Your task to perform on an android device: change your default location settings in chrome Image 0: 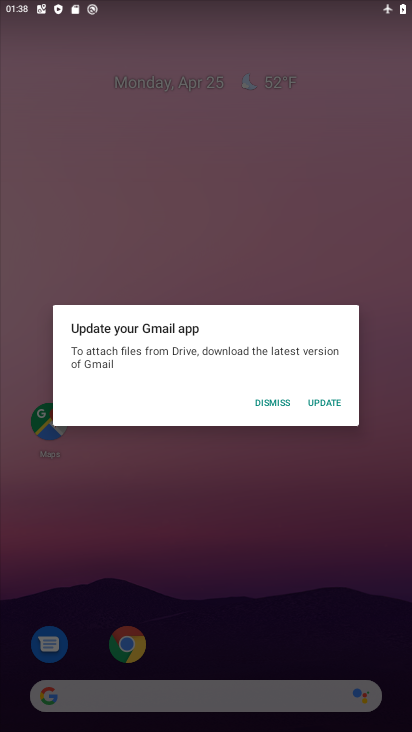
Step 0: press home button
Your task to perform on an android device: change your default location settings in chrome Image 1: 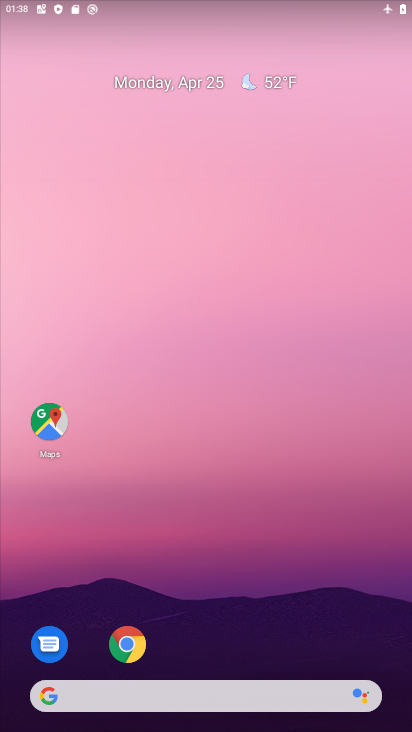
Step 1: click (139, 643)
Your task to perform on an android device: change your default location settings in chrome Image 2: 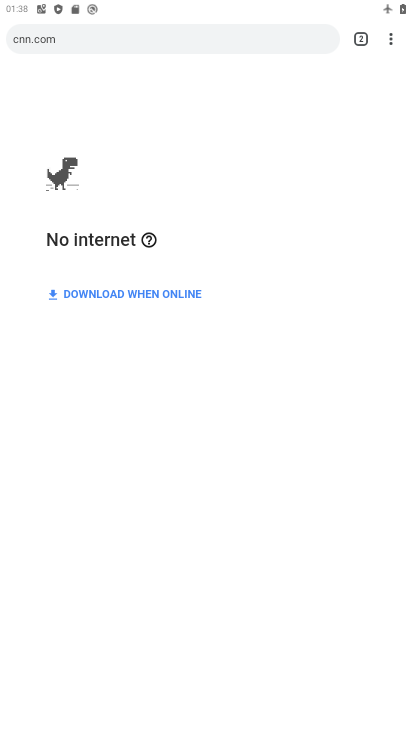
Step 2: click (387, 47)
Your task to perform on an android device: change your default location settings in chrome Image 3: 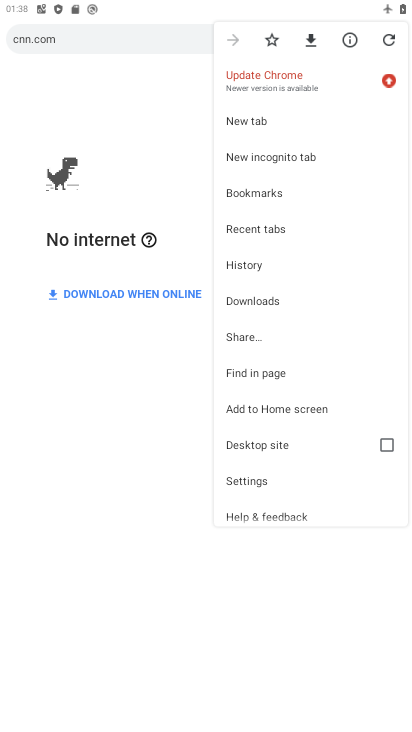
Step 3: click (258, 474)
Your task to perform on an android device: change your default location settings in chrome Image 4: 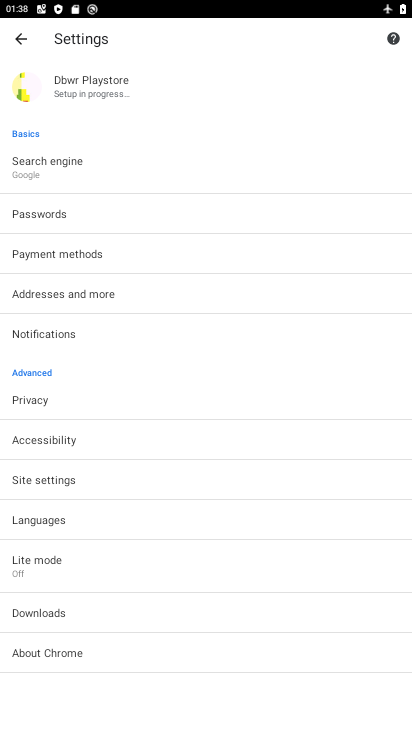
Step 4: click (112, 482)
Your task to perform on an android device: change your default location settings in chrome Image 5: 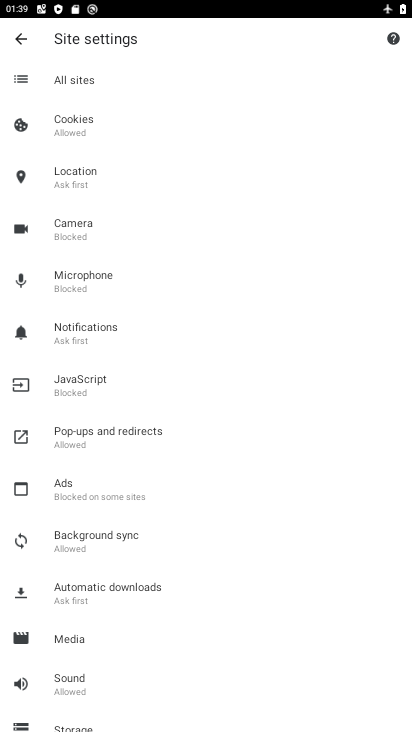
Step 5: click (122, 186)
Your task to perform on an android device: change your default location settings in chrome Image 6: 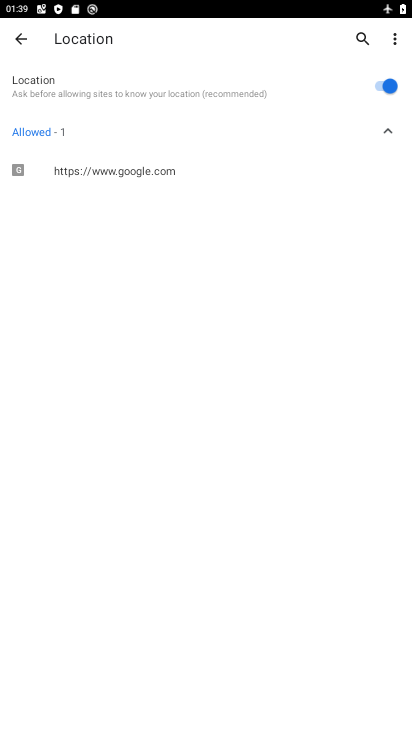
Step 6: task complete